Your task to perform on an android device: Open Reddit.com Image 0: 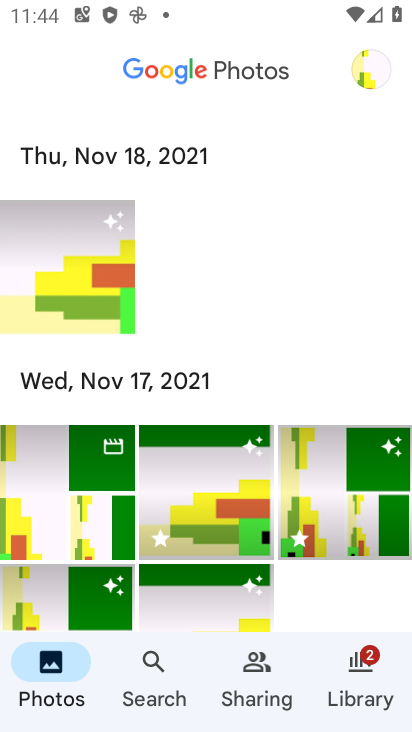
Step 0: press home button
Your task to perform on an android device: Open Reddit.com Image 1: 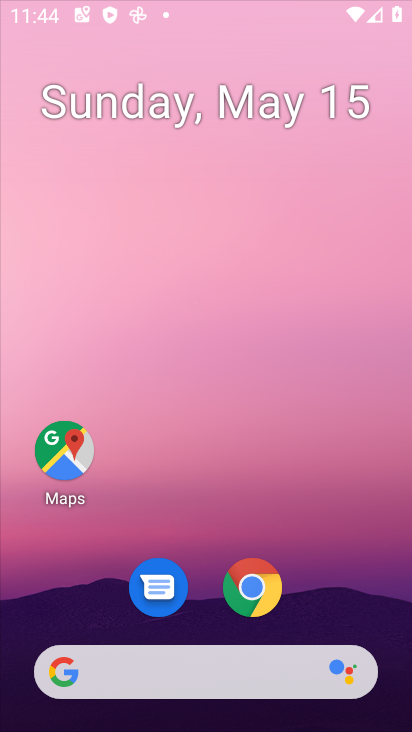
Step 1: drag from (394, 653) to (281, 66)
Your task to perform on an android device: Open Reddit.com Image 2: 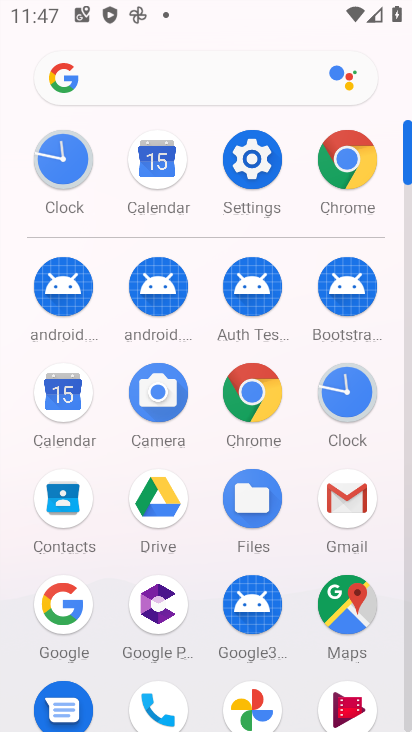
Step 2: click (253, 399)
Your task to perform on an android device: Open Reddit.com Image 3: 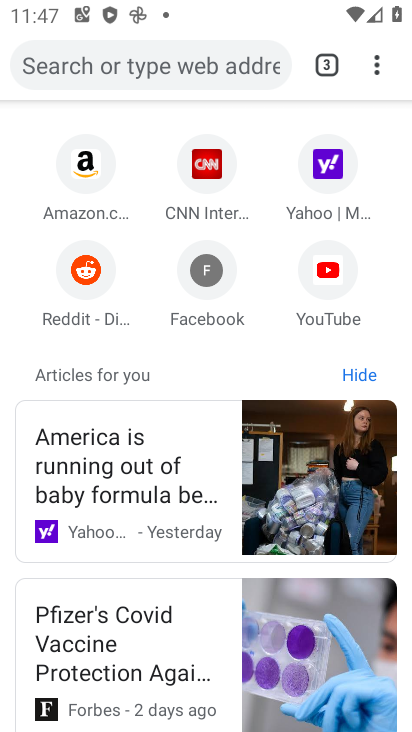
Step 3: click (71, 259)
Your task to perform on an android device: Open Reddit.com Image 4: 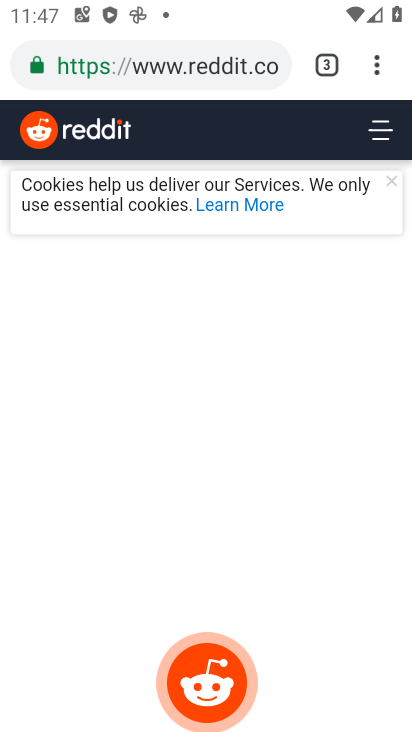
Step 4: task complete